Your task to perform on an android device: What's the weather going to be this weekend? Image 0: 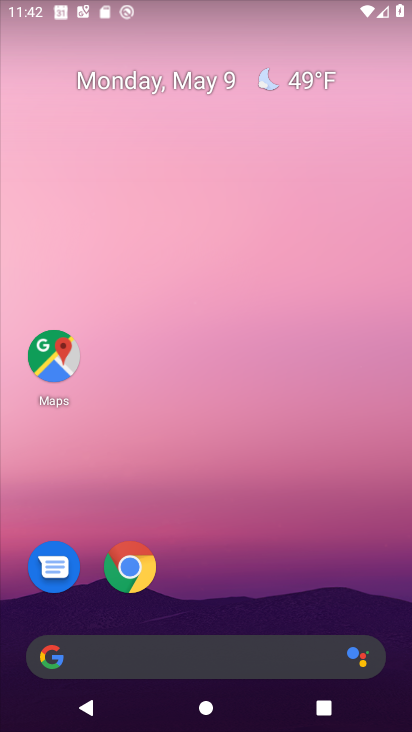
Step 0: drag from (175, 633) to (146, 246)
Your task to perform on an android device: What's the weather going to be this weekend? Image 1: 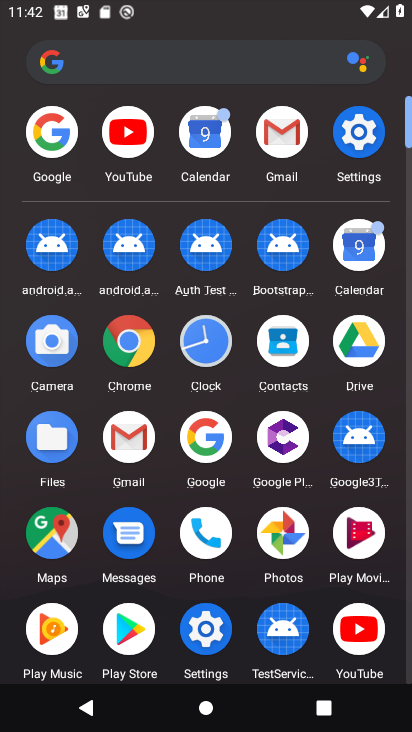
Step 1: click (198, 443)
Your task to perform on an android device: What's the weather going to be this weekend? Image 2: 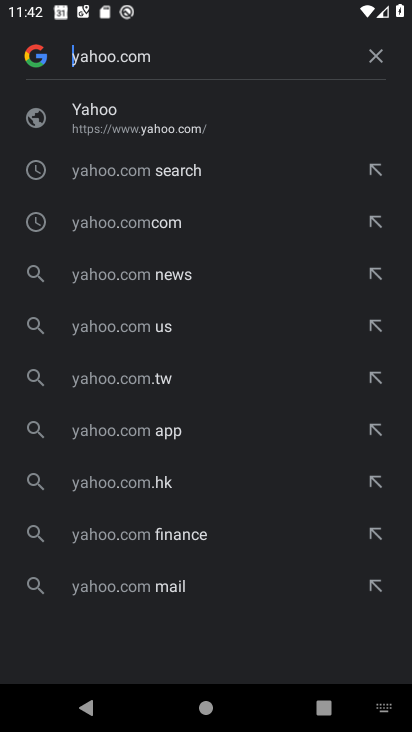
Step 2: click (372, 55)
Your task to perform on an android device: What's the weather going to be this weekend? Image 3: 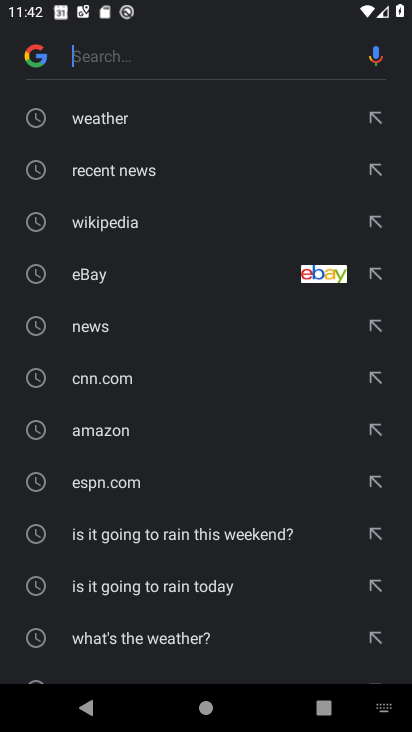
Step 3: click (134, 57)
Your task to perform on an android device: What's the weather going to be this weekend? Image 4: 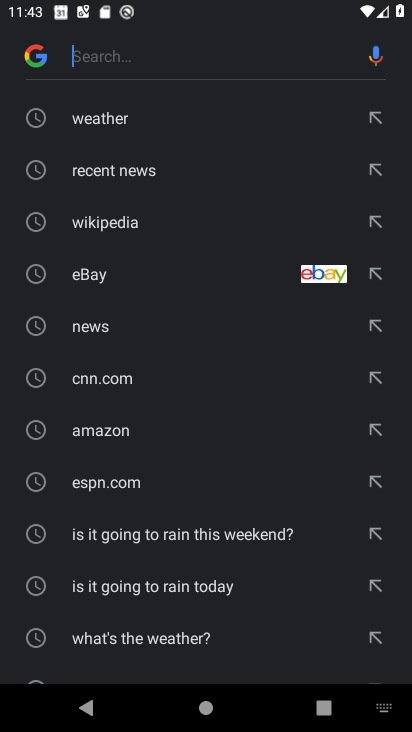
Step 4: type "whats the weather going on this weekend"
Your task to perform on an android device: What's the weather going to be this weekend? Image 5: 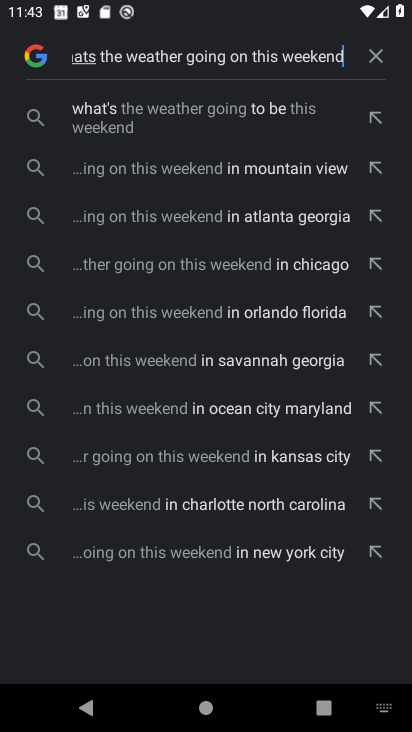
Step 5: click (164, 120)
Your task to perform on an android device: What's the weather going to be this weekend? Image 6: 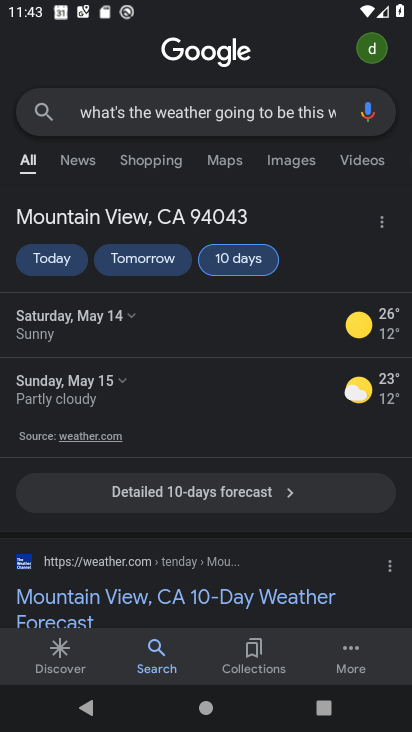
Step 6: drag from (166, 589) to (126, 356)
Your task to perform on an android device: What's the weather going to be this weekend? Image 7: 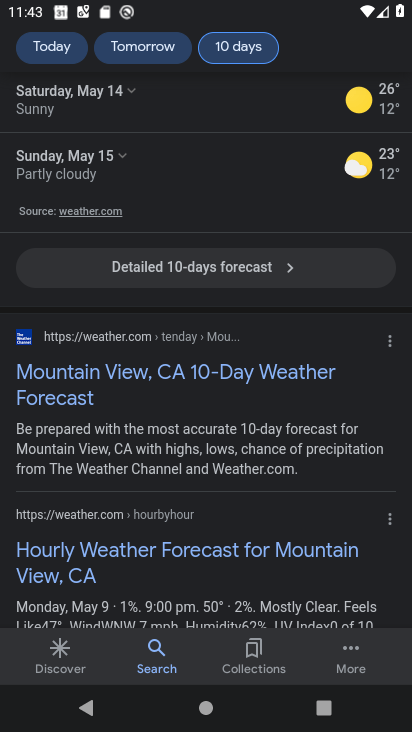
Step 7: click (158, 265)
Your task to perform on an android device: What's the weather going to be this weekend? Image 8: 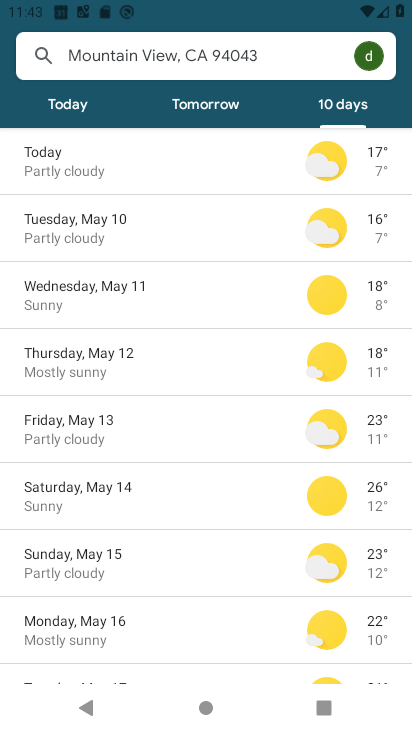
Step 8: task complete